Your task to perform on an android device: open app "Booking.com: Hotels and more" Image 0: 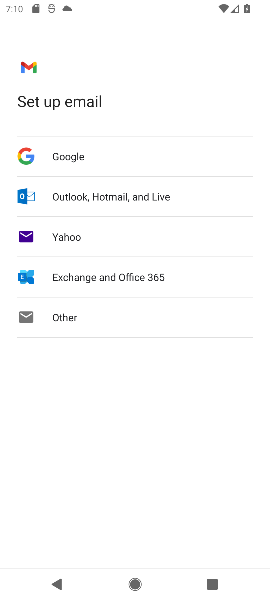
Step 0: press home button
Your task to perform on an android device: open app "Booking.com: Hotels and more" Image 1: 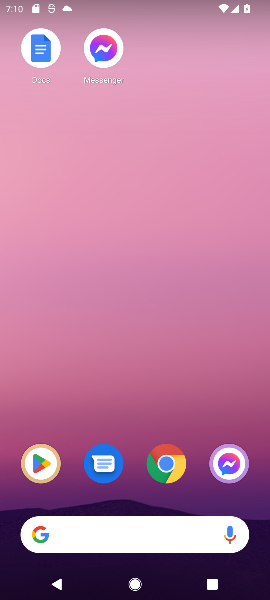
Step 1: click (45, 465)
Your task to perform on an android device: open app "Booking.com: Hotels and more" Image 2: 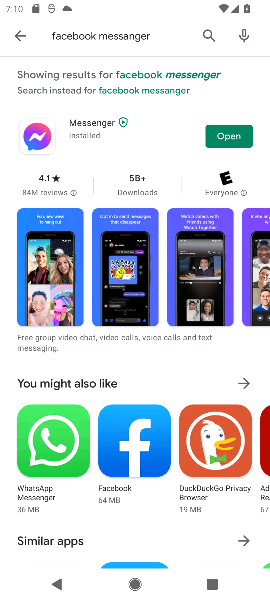
Step 2: click (197, 46)
Your task to perform on an android device: open app "Booking.com: Hotels and more" Image 3: 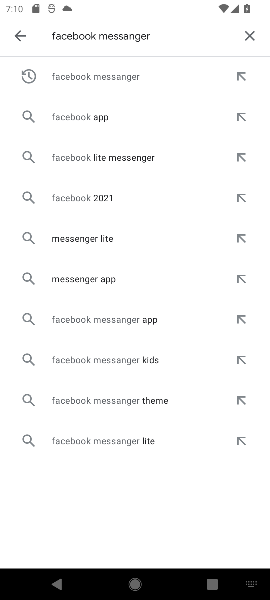
Step 3: click (253, 35)
Your task to perform on an android device: open app "Booking.com: Hotels and more" Image 4: 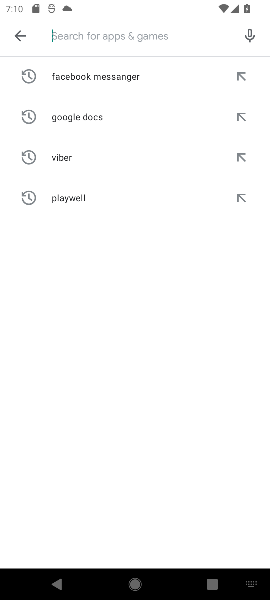
Step 4: type "booking"
Your task to perform on an android device: open app "Booking.com: Hotels and more" Image 5: 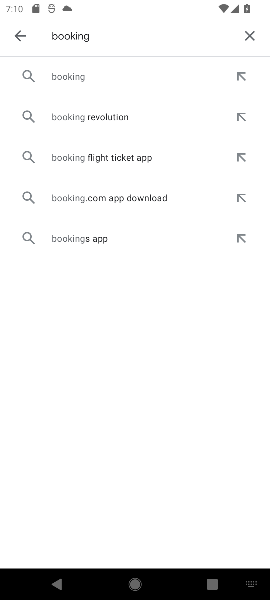
Step 5: click (90, 64)
Your task to perform on an android device: open app "Booking.com: Hotels and more" Image 6: 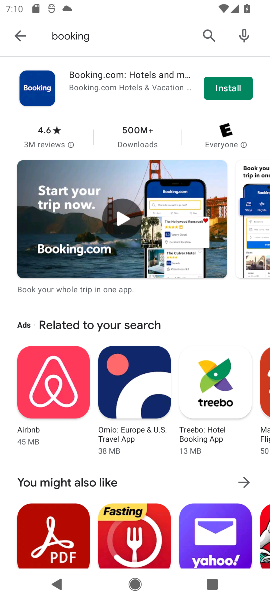
Step 6: click (237, 95)
Your task to perform on an android device: open app "Booking.com: Hotels and more" Image 7: 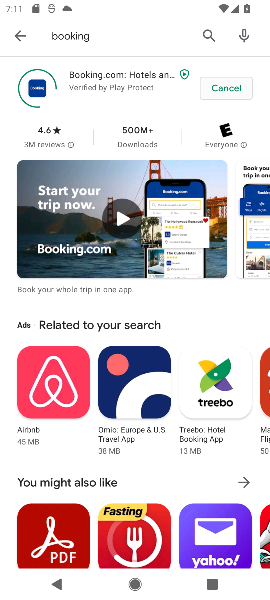
Step 7: task complete